Your task to perform on an android device: What's the weather going to be tomorrow? Image 0: 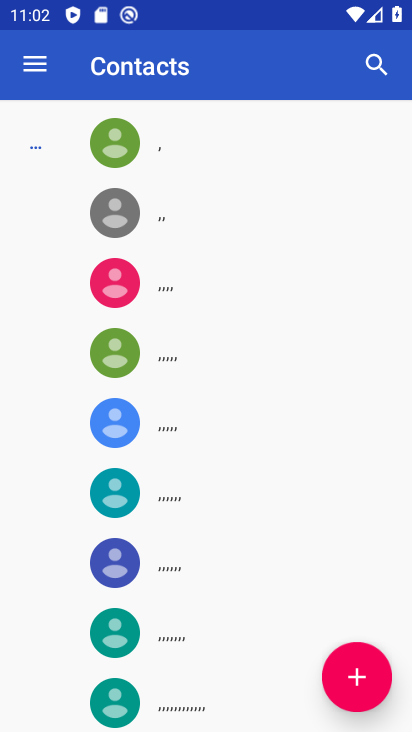
Step 0: press back button
Your task to perform on an android device: What's the weather going to be tomorrow? Image 1: 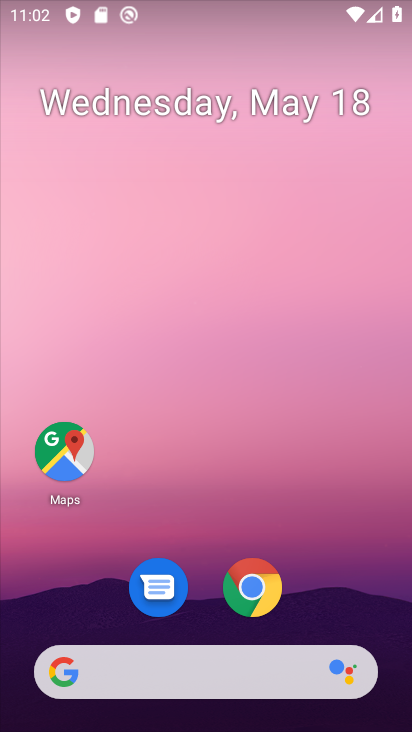
Step 1: drag from (389, 678) to (352, 163)
Your task to perform on an android device: What's the weather going to be tomorrow? Image 2: 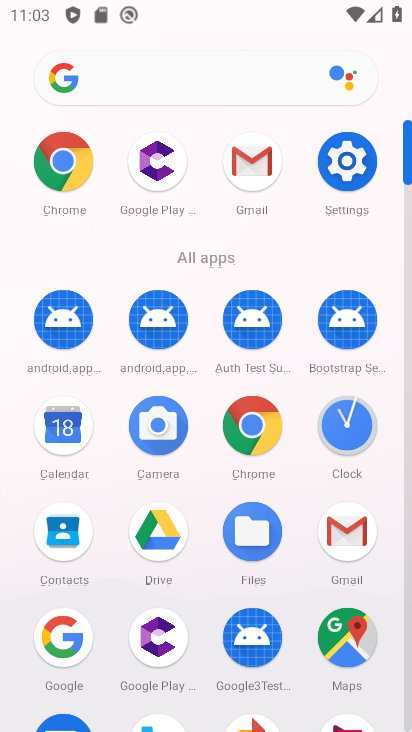
Step 2: click (79, 625)
Your task to perform on an android device: What's the weather going to be tomorrow? Image 3: 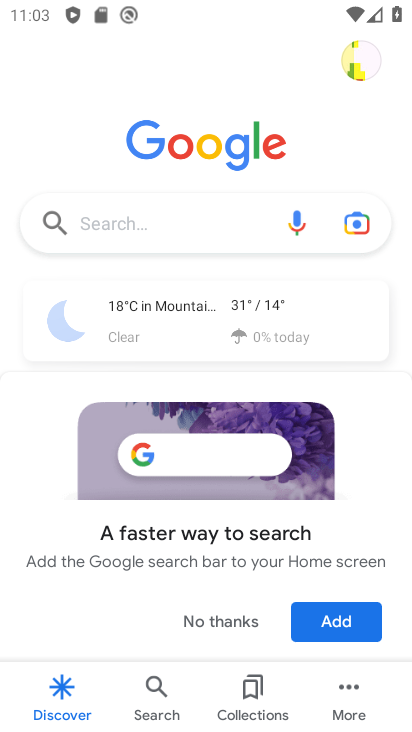
Step 3: click (186, 316)
Your task to perform on an android device: What's the weather going to be tomorrow? Image 4: 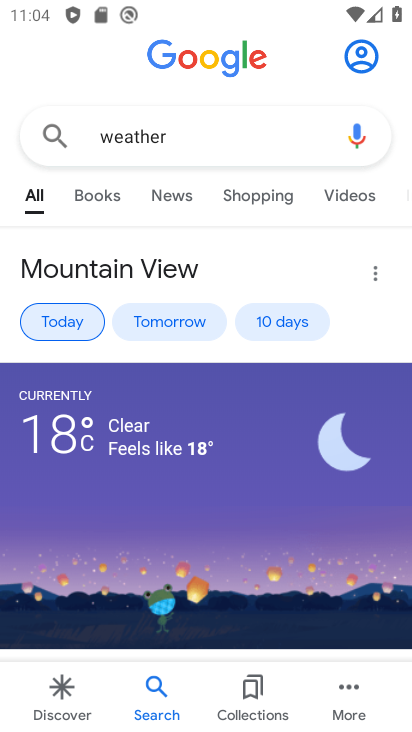
Step 4: click (171, 324)
Your task to perform on an android device: What's the weather going to be tomorrow? Image 5: 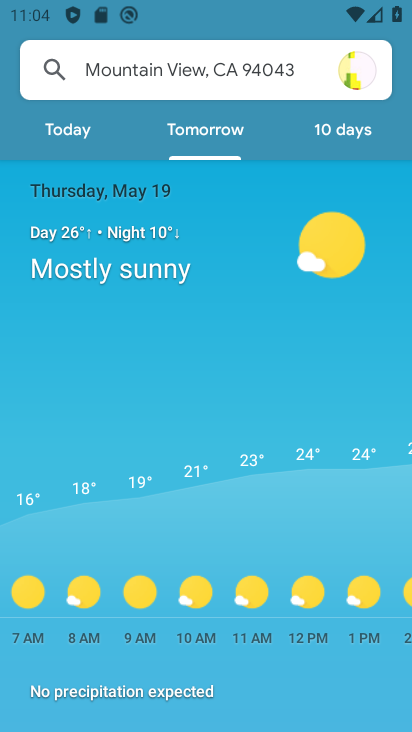
Step 5: task complete